Your task to perform on an android device: Open Youtube and go to the subscriptions tab Image 0: 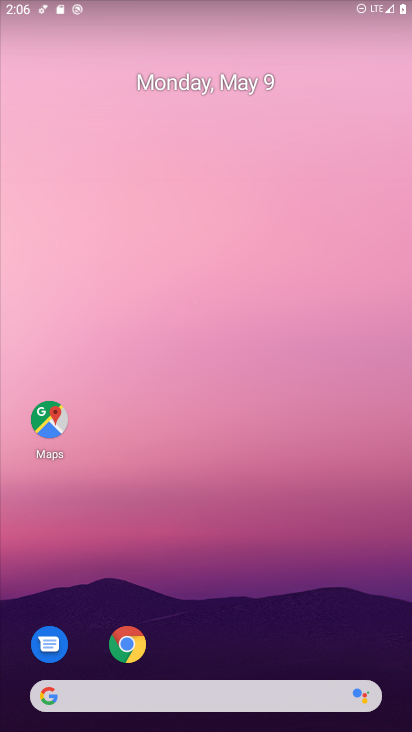
Step 0: drag from (243, 590) to (217, 161)
Your task to perform on an android device: Open Youtube and go to the subscriptions tab Image 1: 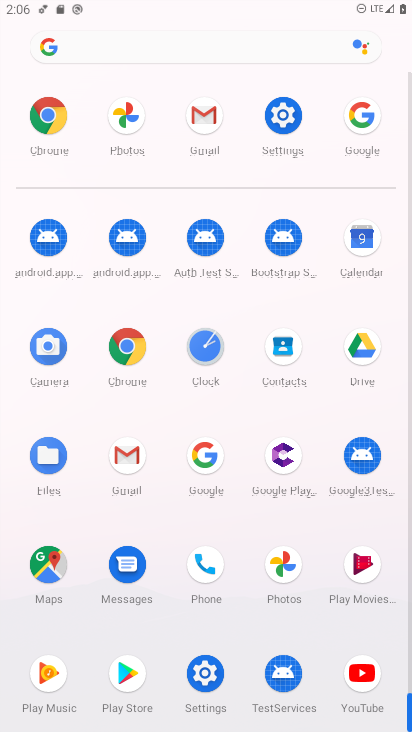
Step 1: click (364, 696)
Your task to perform on an android device: Open Youtube and go to the subscriptions tab Image 2: 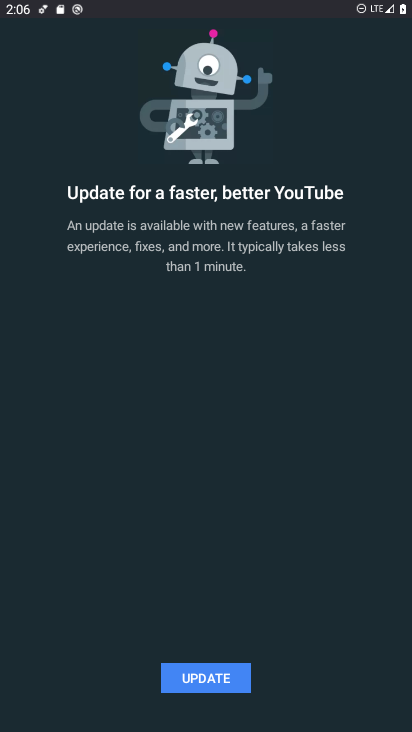
Step 2: click (220, 676)
Your task to perform on an android device: Open Youtube and go to the subscriptions tab Image 3: 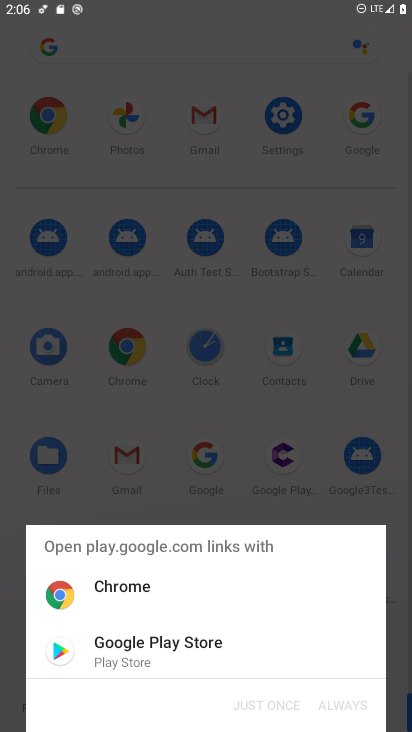
Step 3: click (115, 591)
Your task to perform on an android device: Open Youtube and go to the subscriptions tab Image 4: 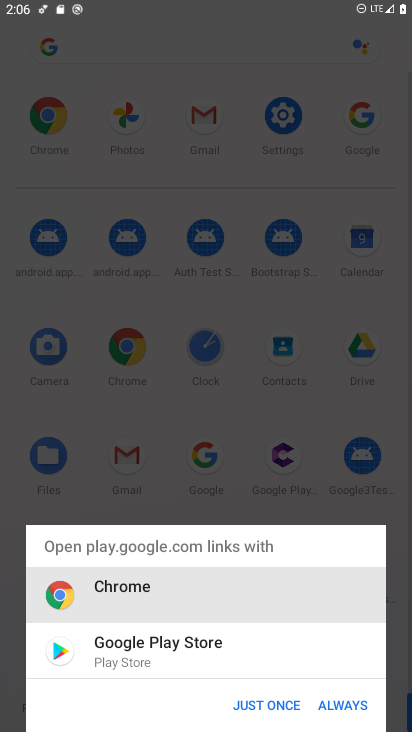
Step 4: click (292, 705)
Your task to perform on an android device: Open Youtube and go to the subscriptions tab Image 5: 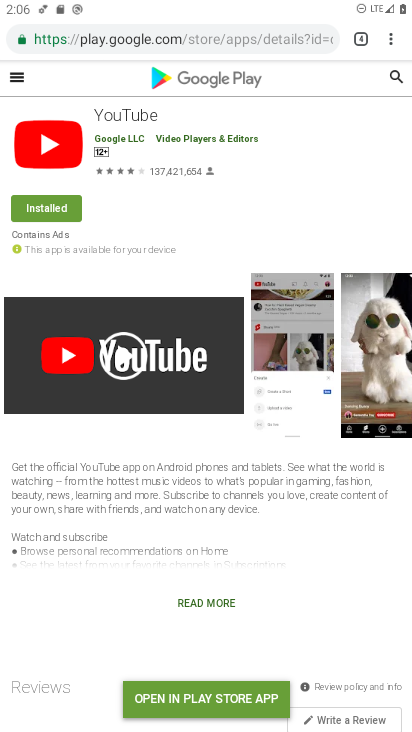
Step 5: drag from (243, 612) to (185, 171)
Your task to perform on an android device: Open Youtube and go to the subscriptions tab Image 6: 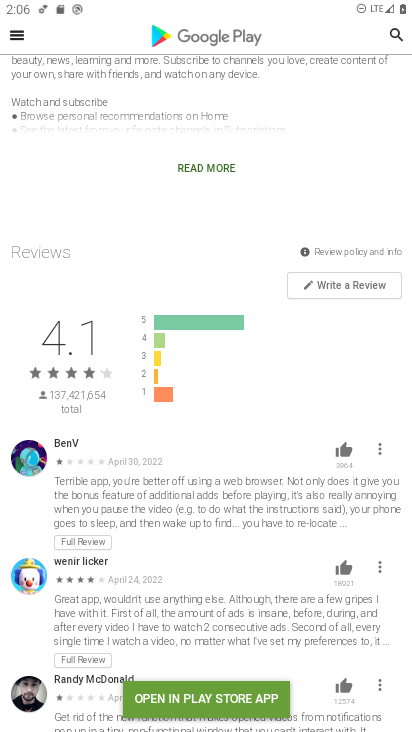
Step 6: drag from (151, 520) to (210, 134)
Your task to perform on an android device: Open Youtube and go to the subscriptions tab Image 7: 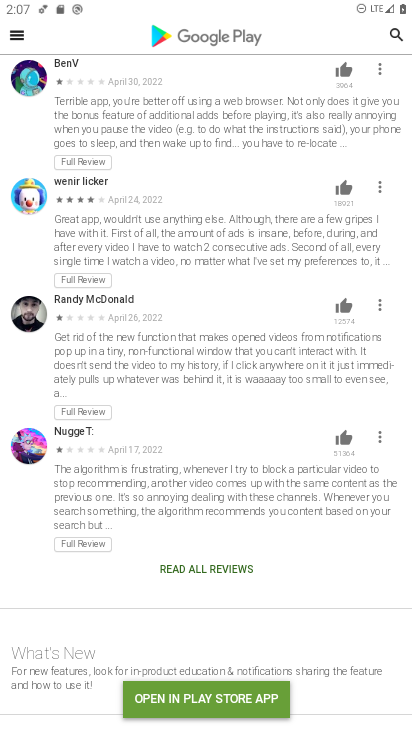
Step 7: click (152, 704)
Your task to perform on an android device: Open Youtube and go to the subscriptions tab Image 8: 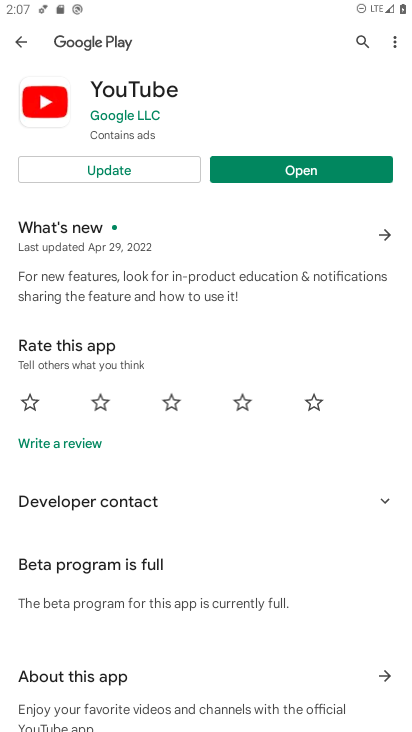
Step 8: click (258, 157)
Your task to perform on an android device: Open Youtube and go to the subscriptions tab Image 9: 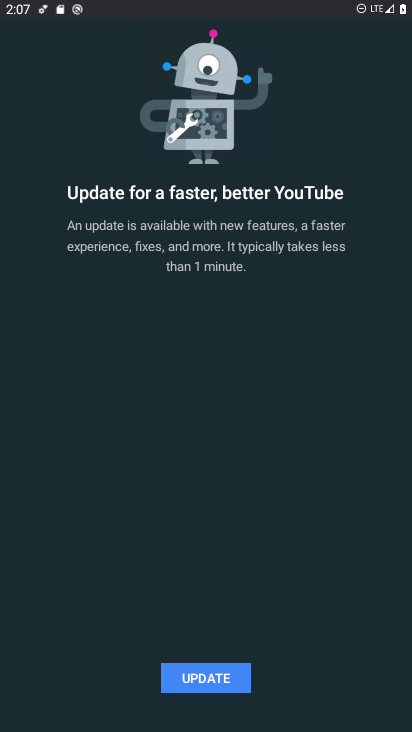
Step 9: press back button
Your task to perform on an android device: Open Youtube and go to the subscriptions tab Image 10: 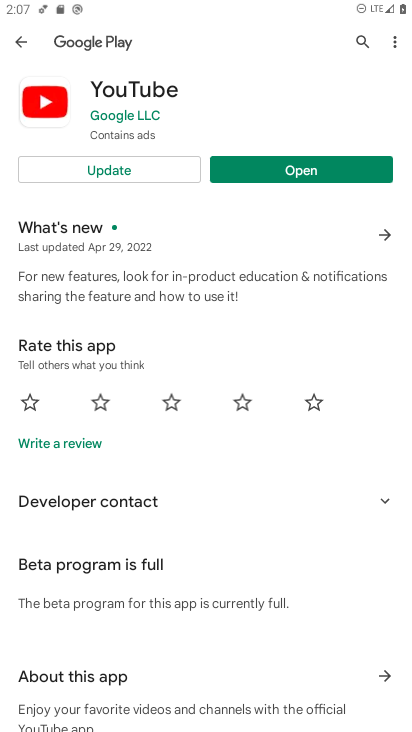
Step 10: click (112, 170)
Your task to perform on an android device: Open Youtube and go to the subscriptions tab Image 11: 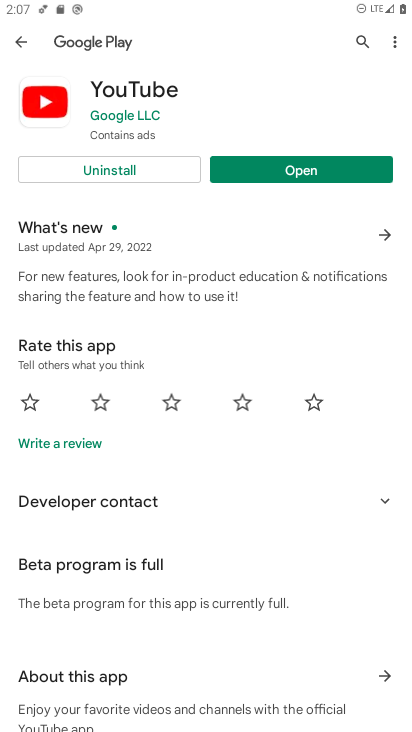
Step 11: click (295, 173)
Your task to perform on an android device: Open Youtube and go to the subscriptions tab Image 12: 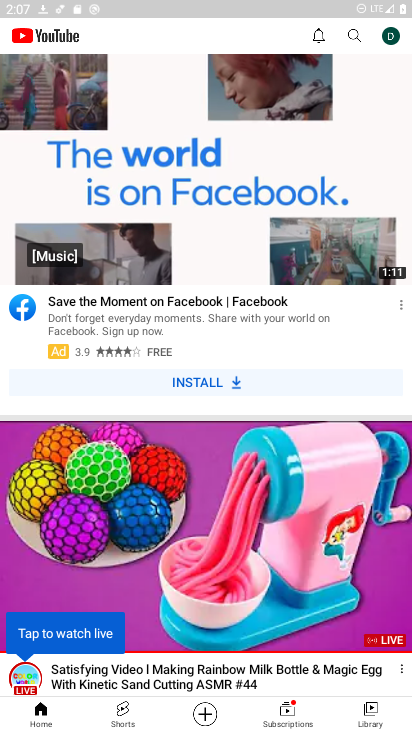
Step 12: click (293, 712)
Your task to perform on an android device: Open Youtube and go to the subscriptions tab Image 13: 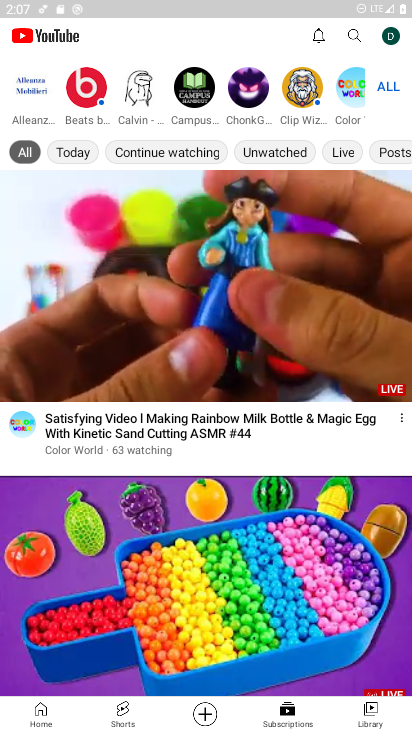
Step 13: task complete